Your task to perform on an android device: Open Google Chrome and click the shortcut for Amazon.com Image 0: 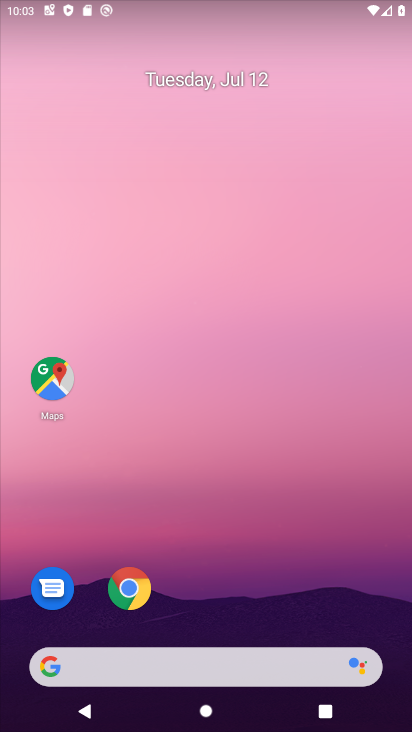
Step 0: click (137, 591)
Your task to perform on an android device: Open Google Chrome and click the shortcut for Amazon.com Image 1: 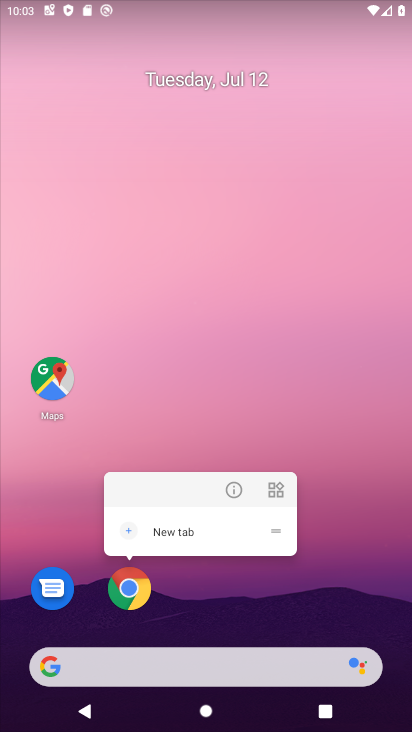
Step 1: click (137, 591)
Your task to perform on an android device: Open Google Chrome and click the shortcut for Amazon.com Image 2: 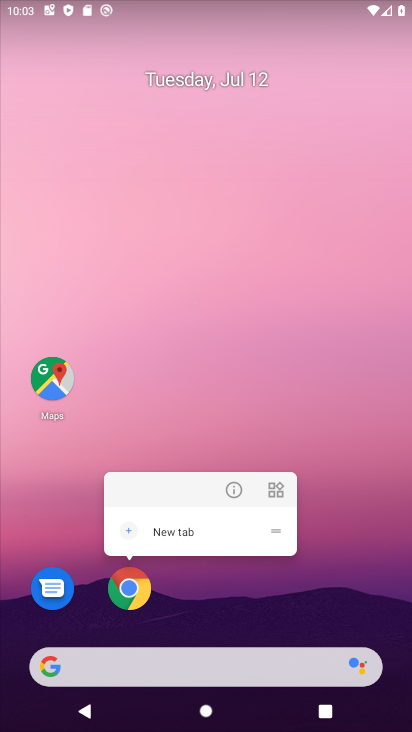
Step 2: click (136, 590)
Your task to perform on an android device: Open Google Chrome and click the shortcut for Amazon.com Image 3: 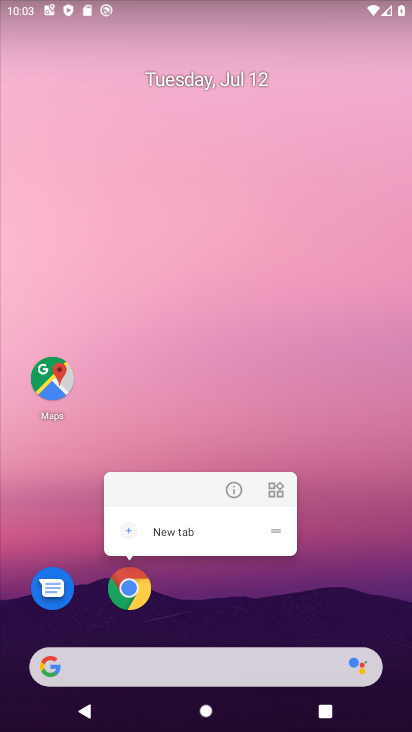
Step 3: click (126, 599)
Your task to perform on an android device: Open Google Chrome and click the shortcut for Amazon.com Image 4: 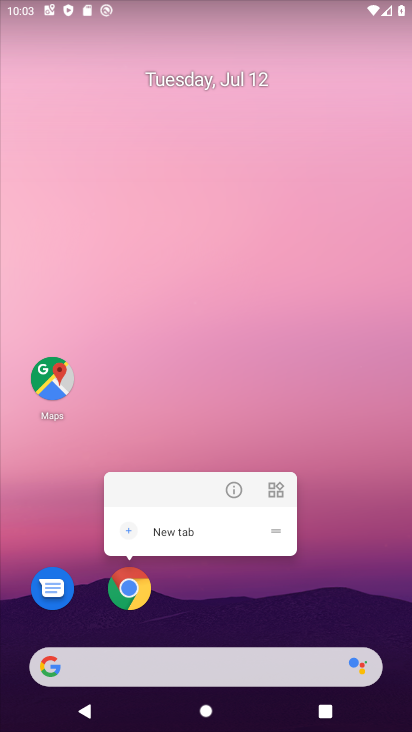
Step 4: click (127, 599)
Your task to perform on an android device: Open Google Chrome and click the shortcut for Amazon.com Image 5: 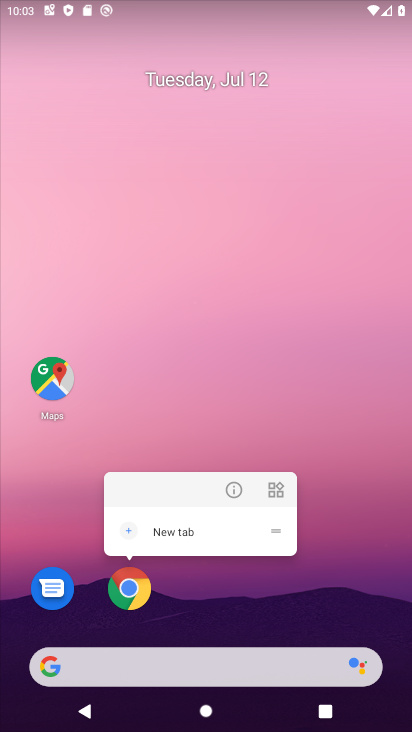
Step 5: click (138, 595)
Your task to perform on an android device: Open Google Chrome and click the shortcut for Amazon.com Image 6: 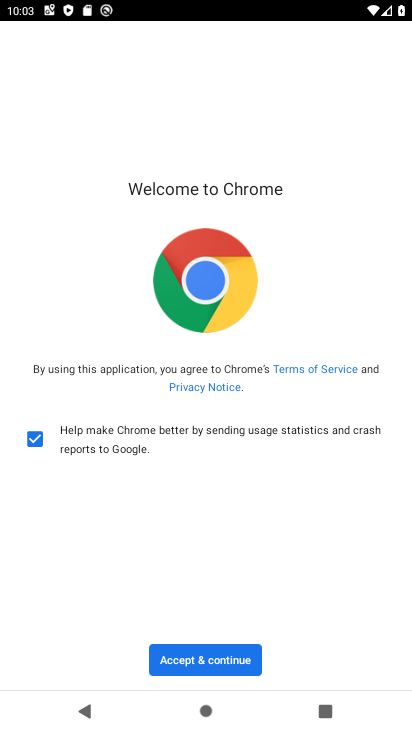
Step 6: click (214, 654)
Your task to perform on an android device: Open Google Chrome and click the shortcut for Amazon.com Image 7: 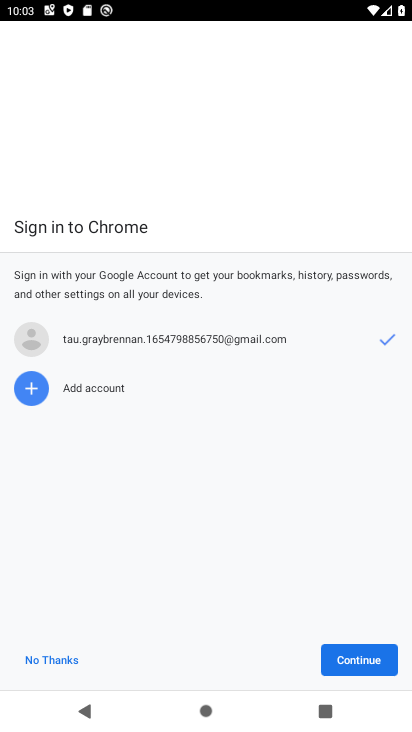
Step 7: click (384, 664)
Your task to perform on an android device: Open Google Chrome and click the shortcut for Amazon.com Image 8: 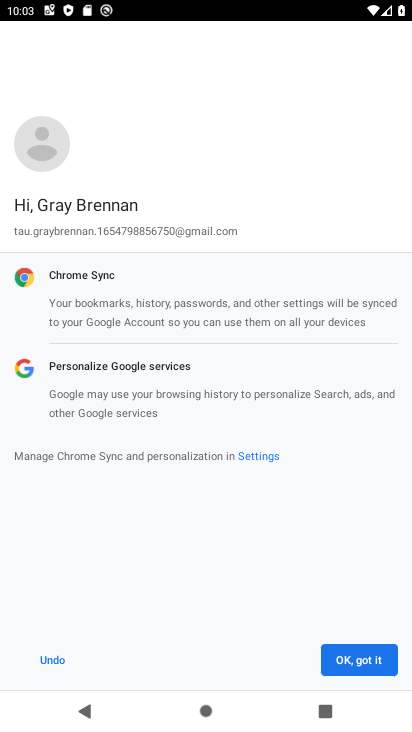
Step 8: click (384, 662)
Your task to perform on an android device: Open Google Chrome and click the shortcut for Amazon.com Image 9: 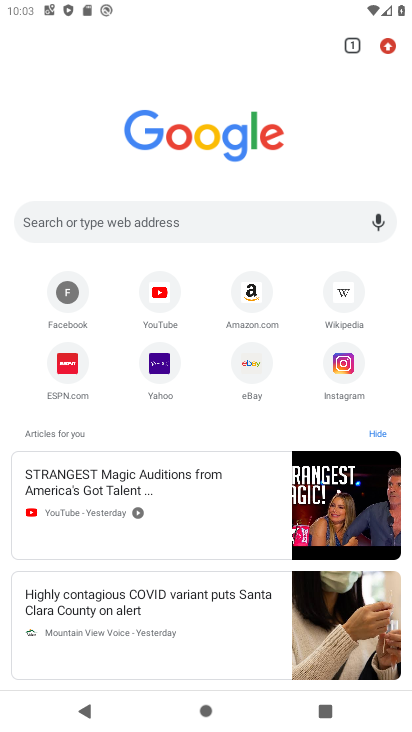
Step 9: click (252, 300)
Your task to perform on an android device: Open Google Chrome and click the shortcut for Amazon.com Image 10: 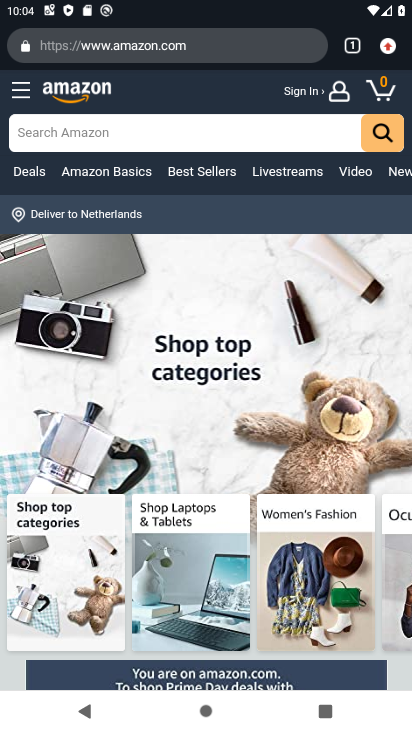
Step 10: task complete